Your task to perform on an android device: Open CNN.com Image 0: 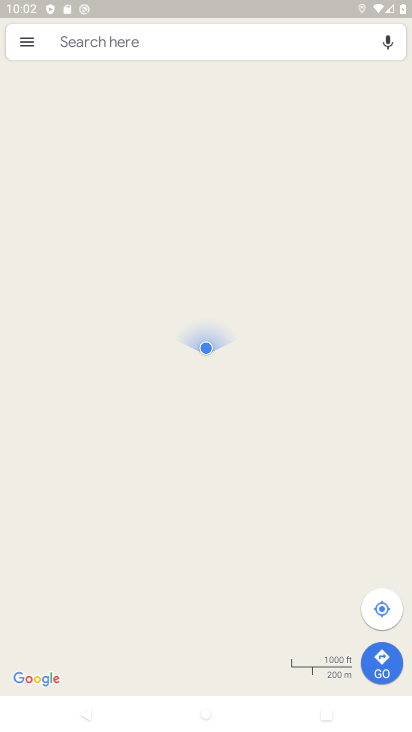
Step 0: press home button
Your task to perform on an android device: Open CNN.com Image 1: 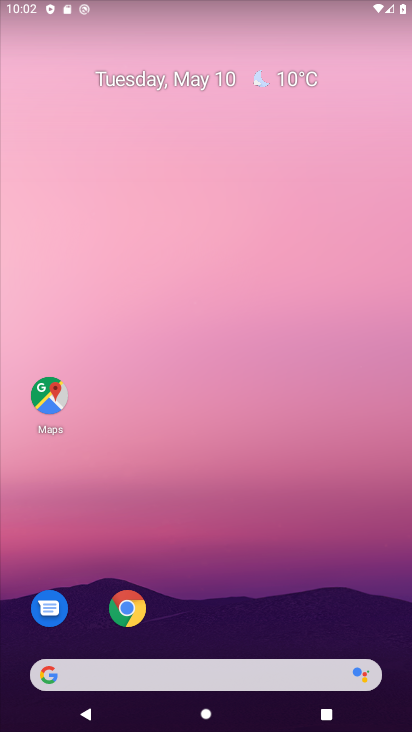
Step 1: drag from (259, 612) to (220, 62)
Your task to perform on an android device: Open CNN.com Image 2: 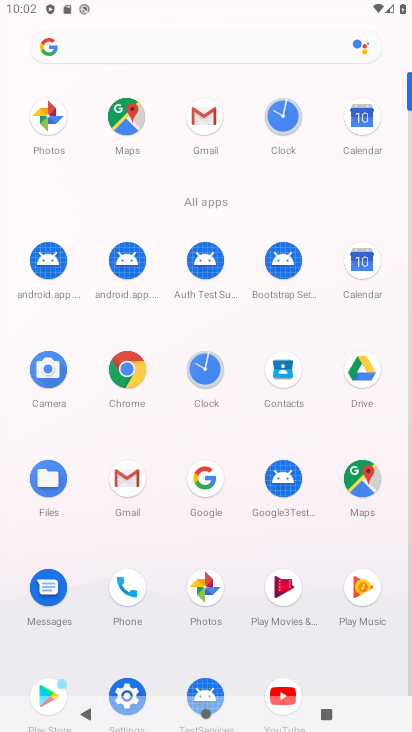
Step 2: click (117, 358)
Your task to perform on an android device: Open CNN.com Image 3: 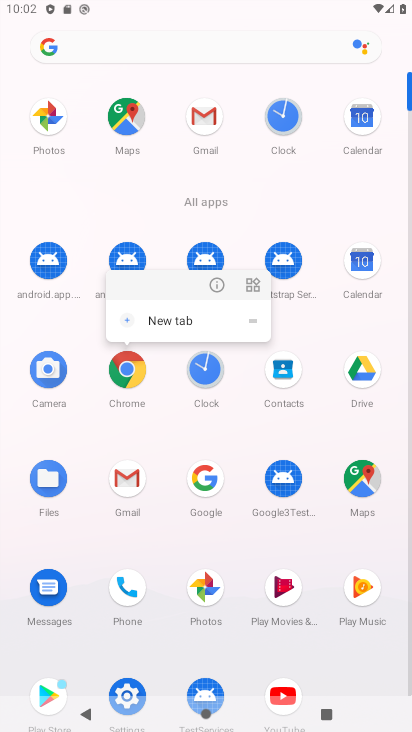
Step 3: click (135, 377)
Your task to perform on an android device: Open CNN.com Image 4: 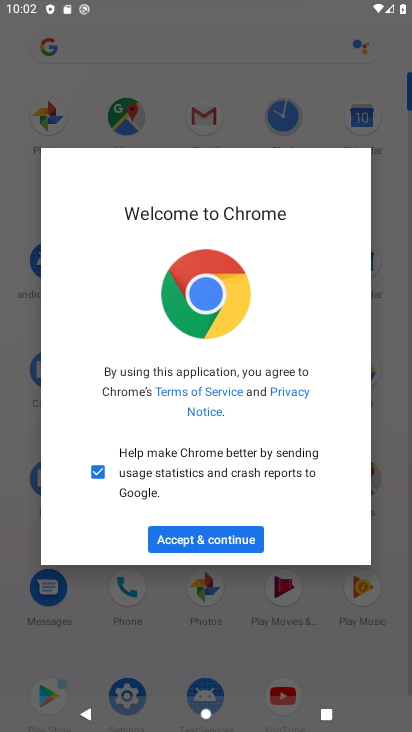
Step 4: click (181, 538)
Your task to perform on an android device: Open CNN.com Image 5: 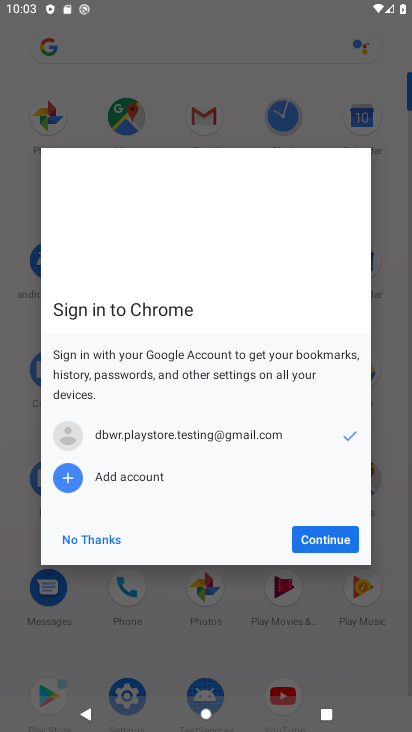
Step 5: click (367, 549)
Your task to perform on an android device: Open CNN.com Image 6: 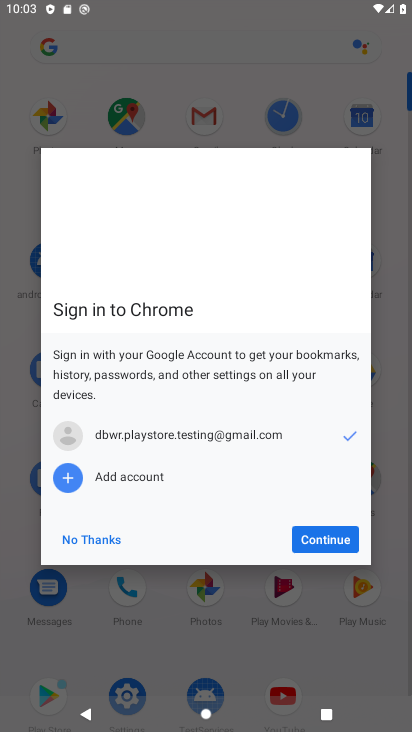
Step 6: click (350, 537)
Your task to perform on an android device: Open CNN.com Image 7: 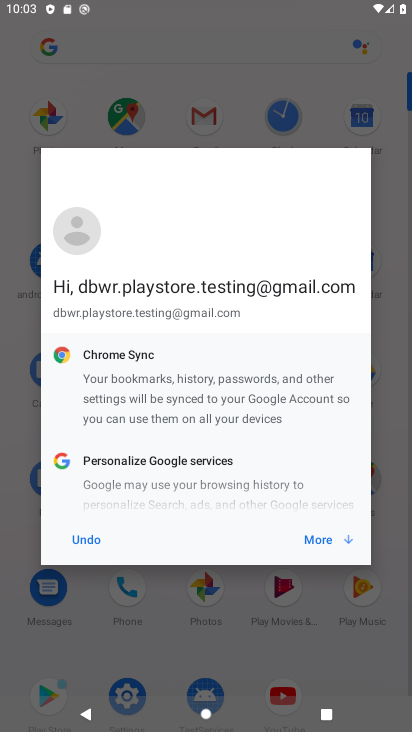
Step 7: click (342, 536)
Your task to perform on an android device: Open CNN.com Image 8: 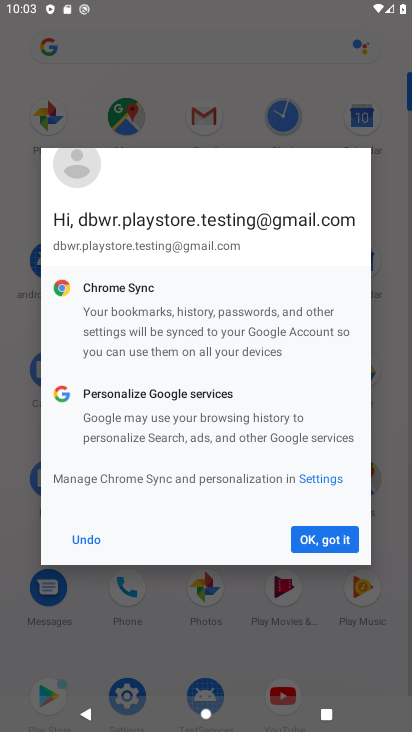
Step 8: click (342, 536)
Your task to perform on an android device: Open CNN.com Image 9: 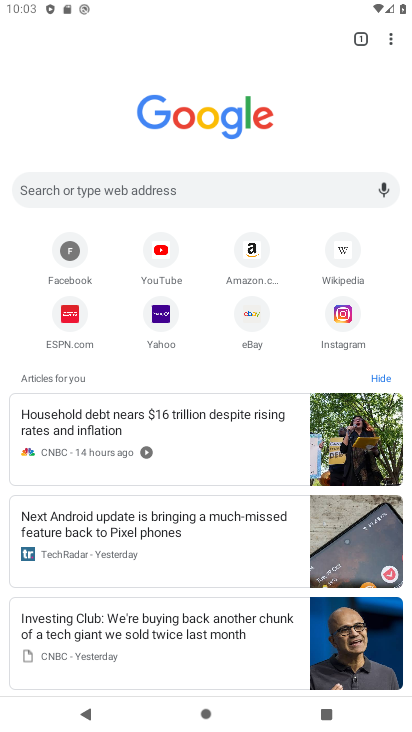
Step 9: click (213, 183)
Your task to perform on an android device: Open CNN.com Image 10: 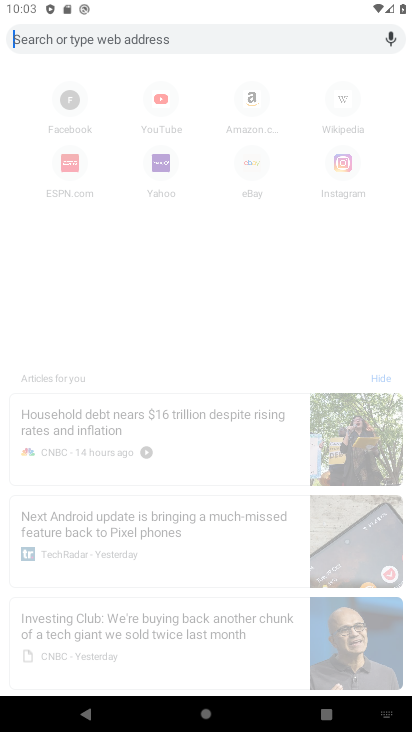
Step 10: type "cnn.com"
Your task to perform on an android device: Open CNN.com Image 11: 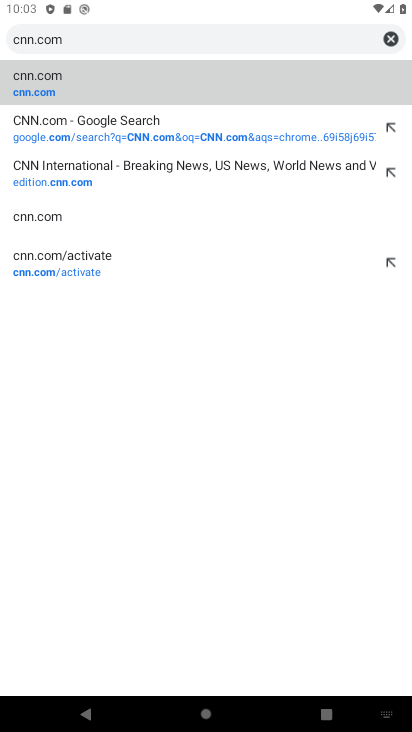
Step 11: click (146, 140)
Your task to perform on an android device: Open CNN.com Image 12: 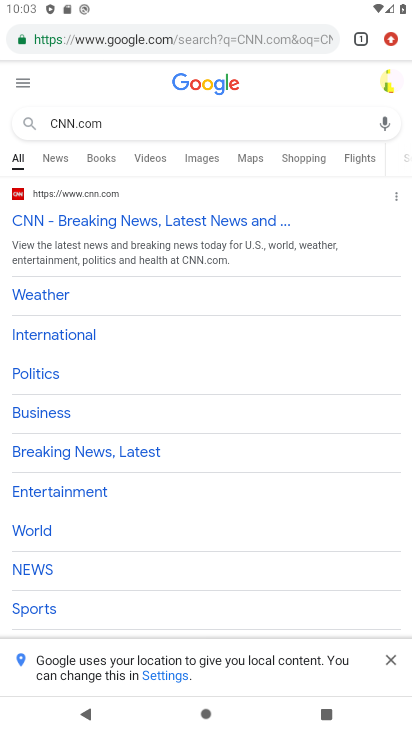
Step 12: task complete